Your task to perform on an android device: allow cookies in the chrome app Image 0: 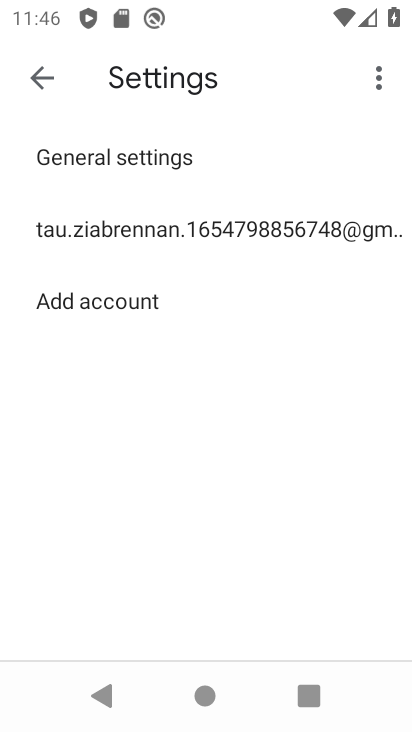
Step 0: press home button
Your task to perform on an android device: allow cookies in the chrome app Image 1: 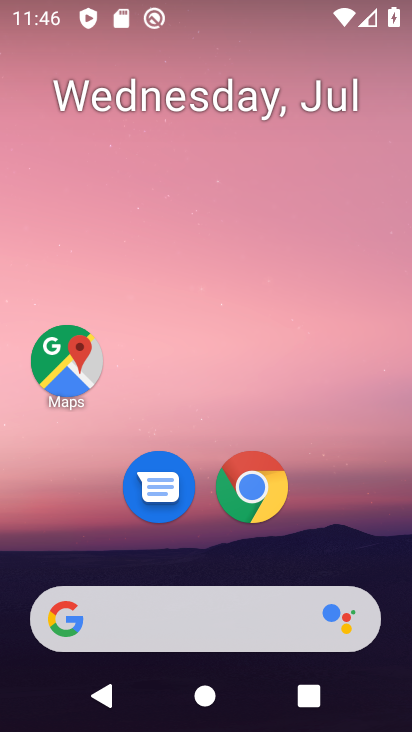
Step 1: drag from (240, 595) to (318, 142)
Your task to perform on an android device: allow cookies in the chrome app Image 2: 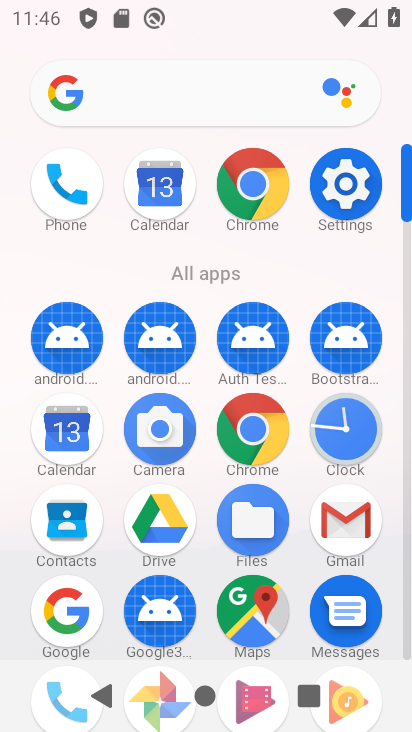
Step 2: click (268, 194)
Your task to perform on an android device: allow cookies in the chrome app Image 3: 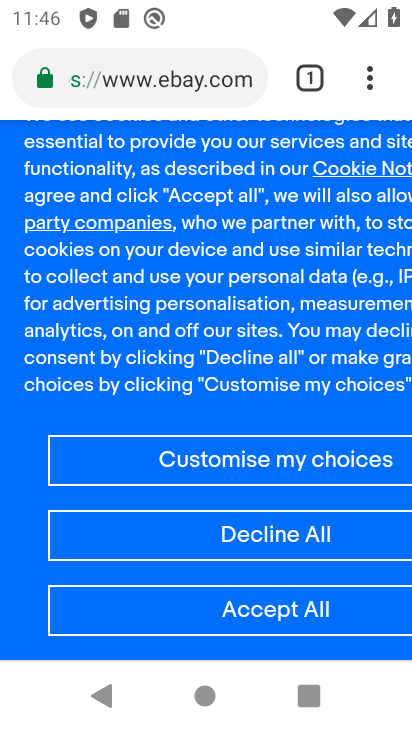
Step 3: click (384, 92)
Your task to perform on an android device: allow cookies in the chrome app Image 4: 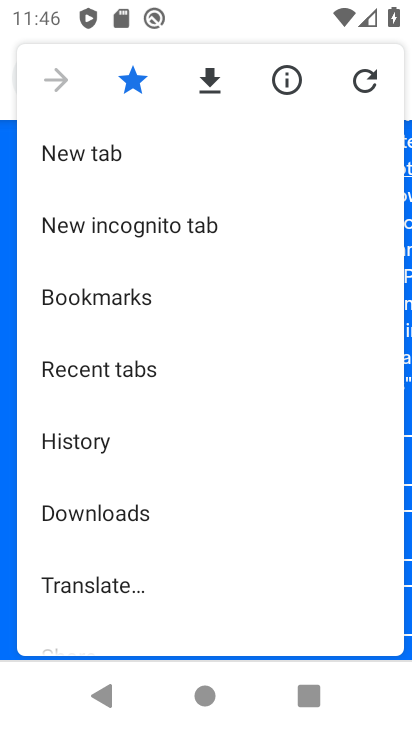
Step 4: drag from (125, 512) to (226, 154)
Your task to perform on an android device: allow cookies in the chrome app Image 5: 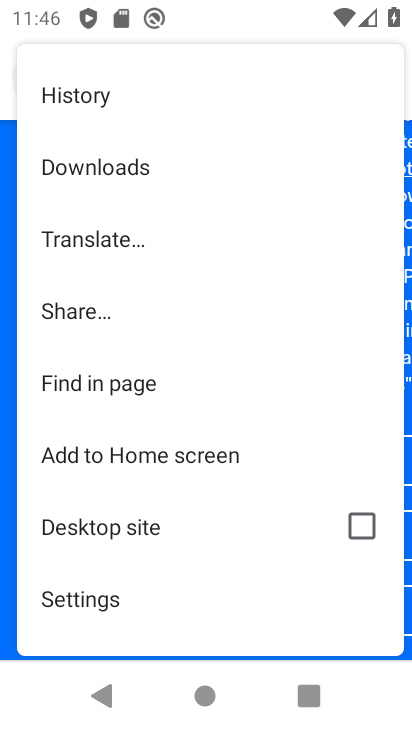
Step 5: click (98, 601)
Your task to perform on an android device: allow cookies in the chrome app Image 6: 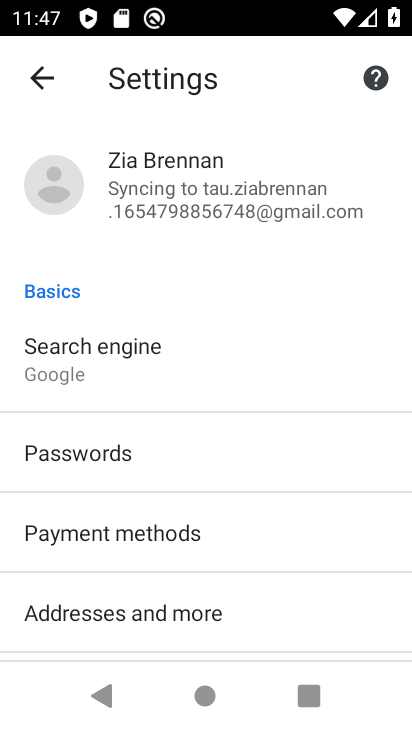
Step 6: drag from (167, 445) to (232, 133)
Your task to perform on an android device: allow cookies in the chrome app Image 7: 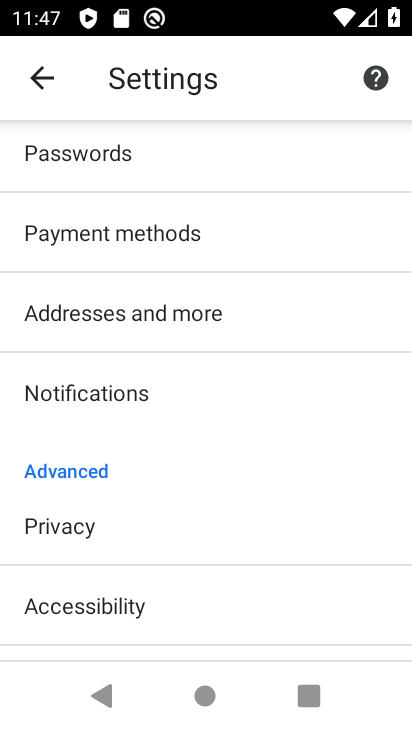
Step 7: drag from (170, 518) to (210, 203)
Your task to perform on an android device: allow cookies in the chrome app Image 8: 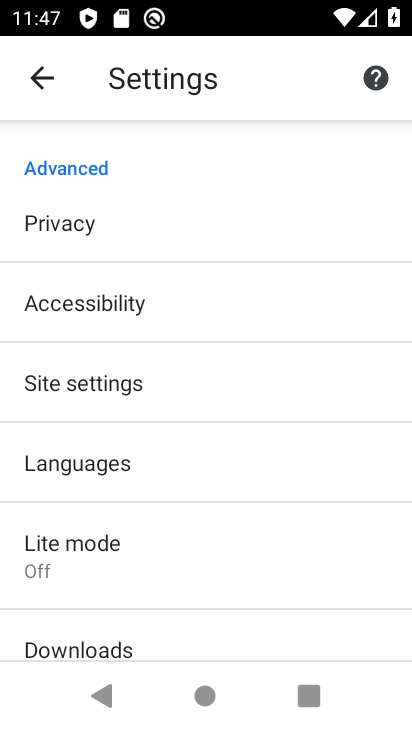
Step 8: click (97, 394)
Your task to perform on an android device: allow cookies in the chrome app Image 9: 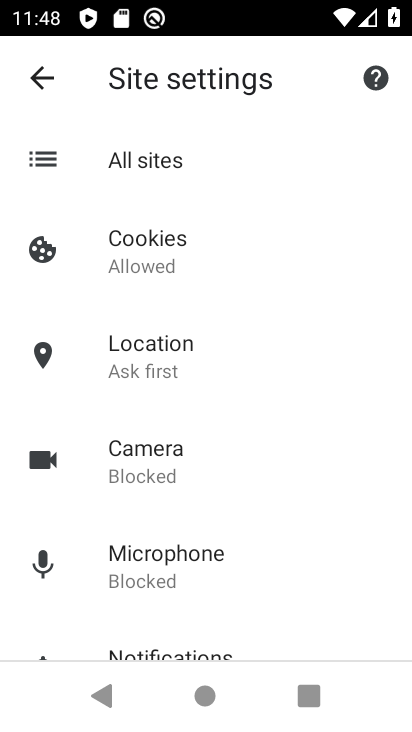
Step 9: click (174, 262)
Your task to perform on an android device: allow cookies in the chrome app Image 10: 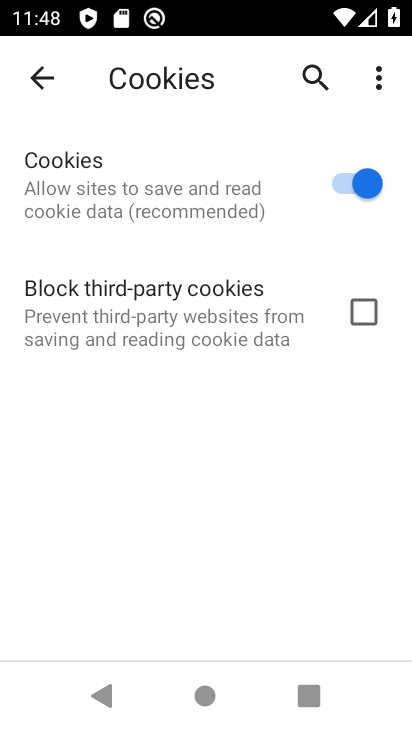
Step 10: task complete